Your task to perform on an android device: Add corsair k70 to the cart on bestbuy.com, then select checkout. Image 0: 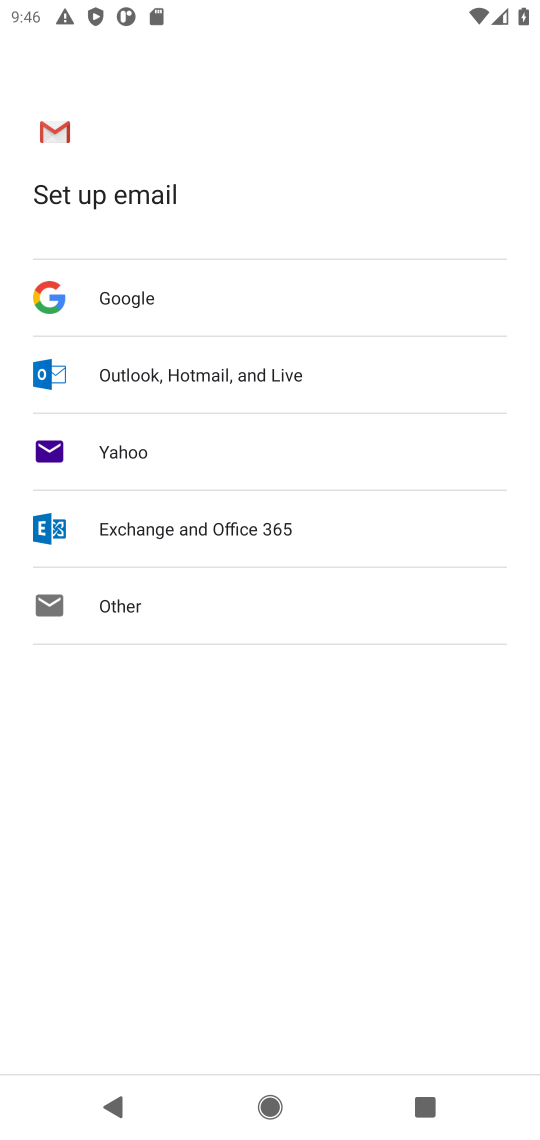
Step 0: press home button
Your task to perform on an android device: Add corsair k70 to the cart on bestbuy.com, then select checkout. Image 1: 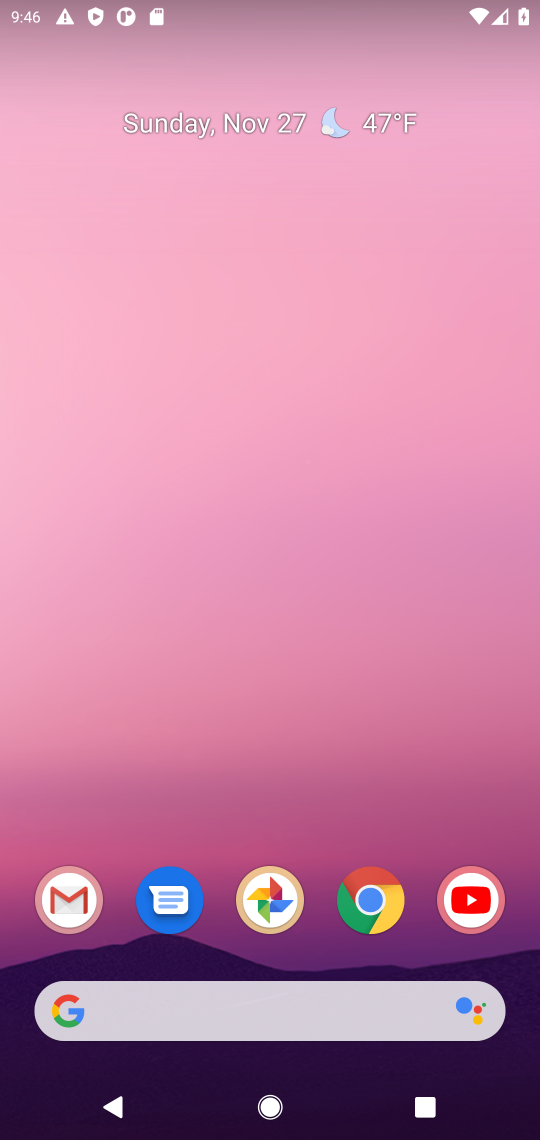
Step 1: click (388, 905)
Your task to perform on an android device: Add corsair k70 to the cart on bestbuy.com, then select checkout. Image 2: 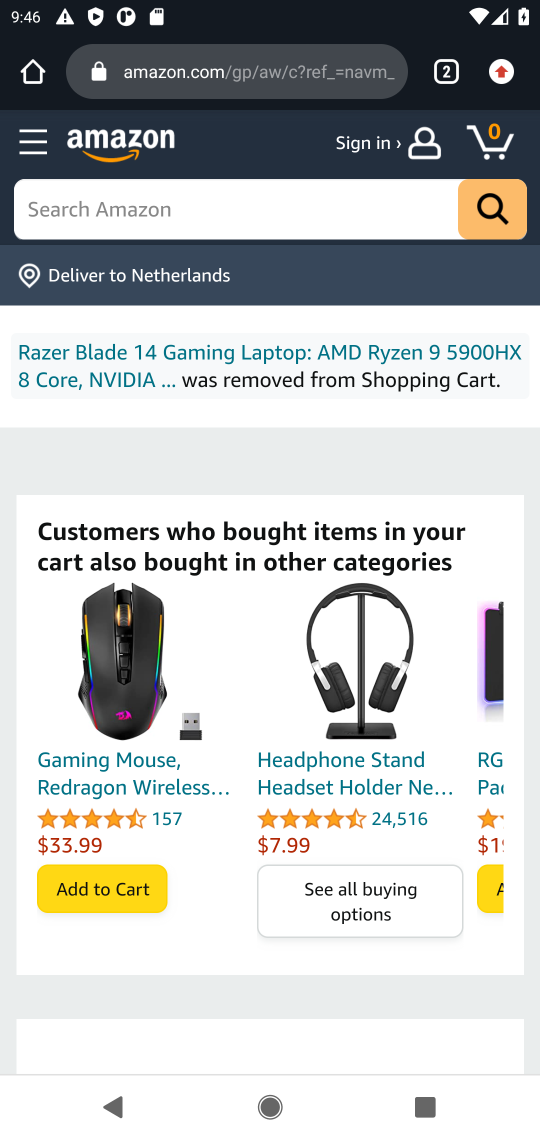
Step 2: click (258, 71)
Your task to perform on an android device: Add corsair k70 to the cart on bestbuy.com, then select checkout. Image 3: 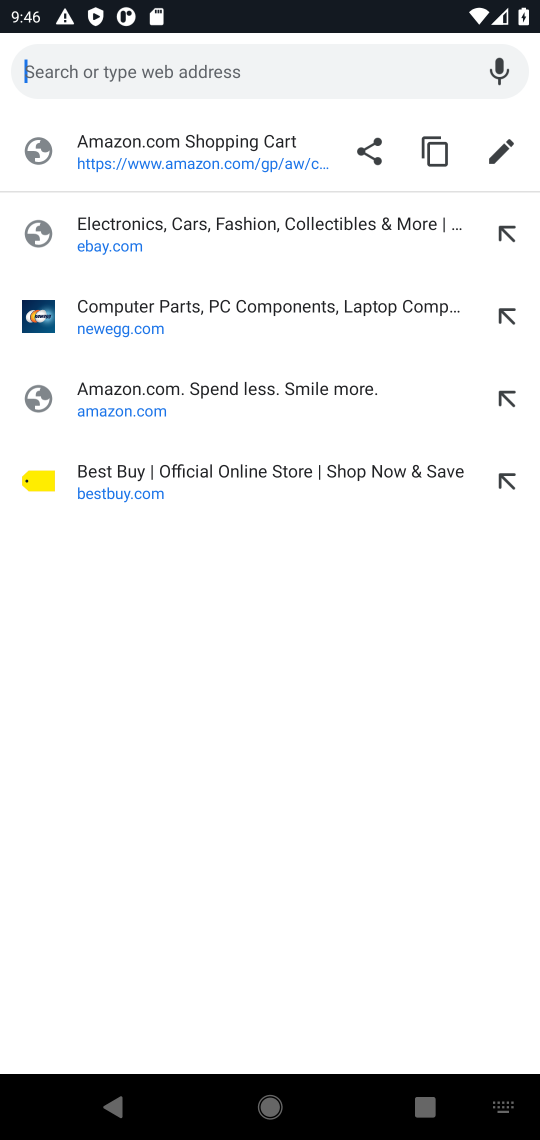
Step 3: click (108, 481)
Your task to perform on an android device: Add corsair k70 to the cart on bestbuy.com, then select checkout. Image 4: 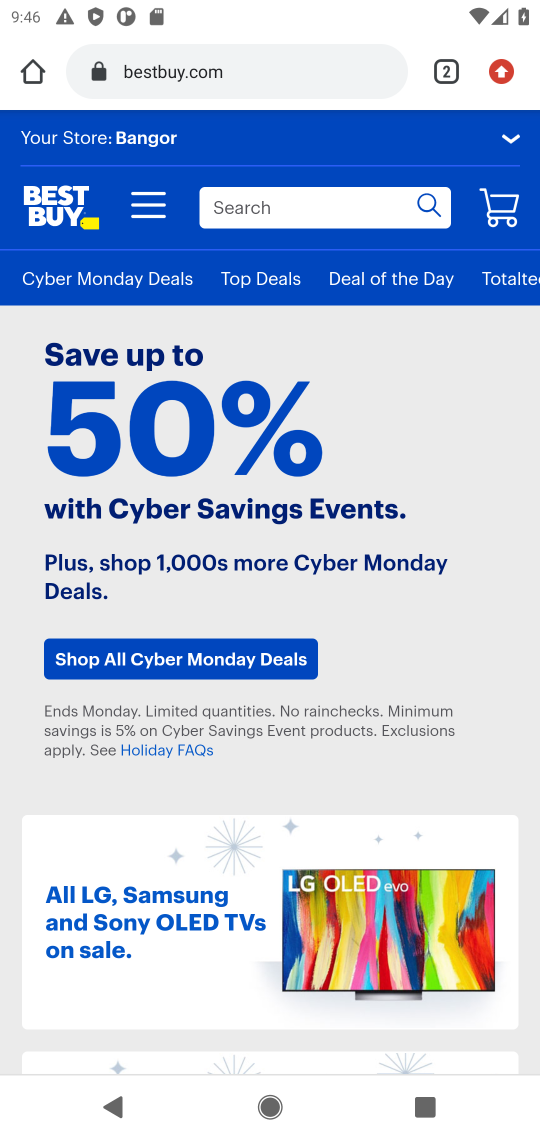
Step 4: click (290, 208)
Your task to perform on an android device: Add corsair k70 to the cart on bestbuy.com, then select checkout. Image 5: 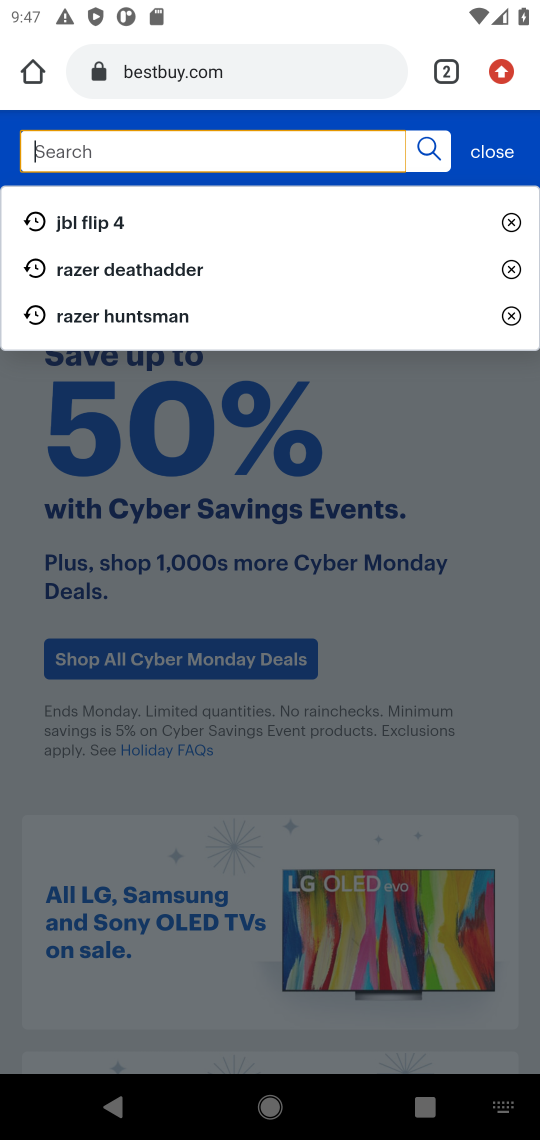
Step 5: type "corsair k70"
Your task to perform on an android device: Add corsair k70 to the cart on bestbuy.com, then select checkout. Image 6: 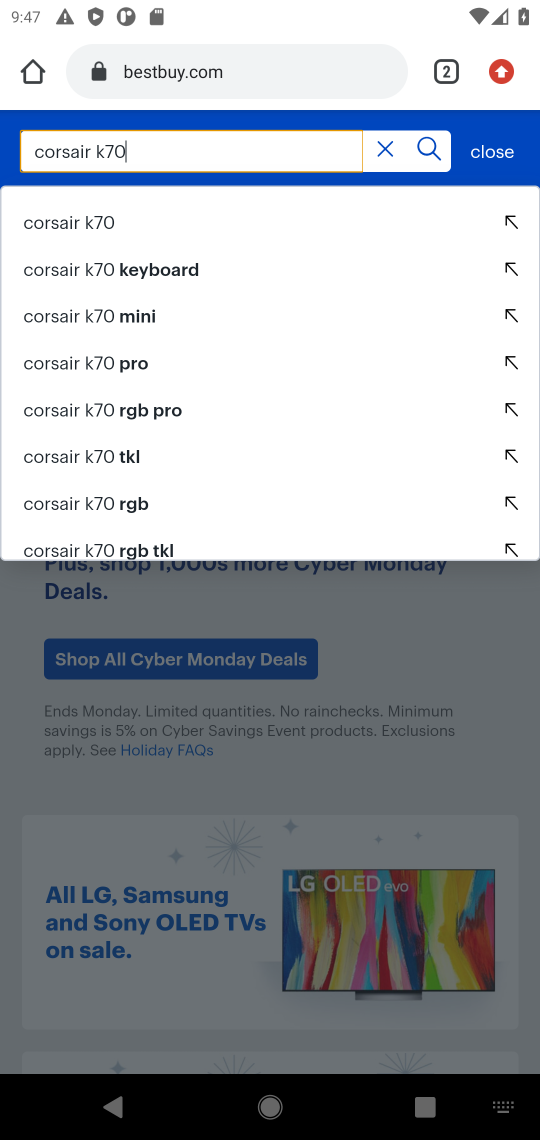
Step 6: click (60, 228)
Your task to perform on an android device: Add corsair k70 to the cart on bestbuy.com, then select checkout. Image 7: 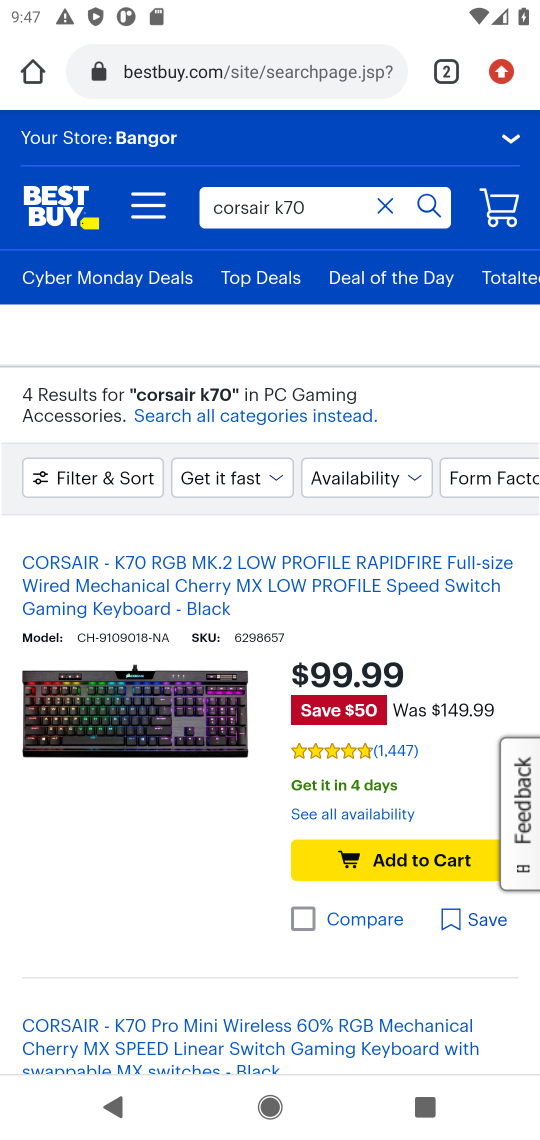
Step 7: click (373, 852)
Your task to perform on an android device: Add corsair k70 to the cart on bestbuy.com, then select checkout. Image 8: 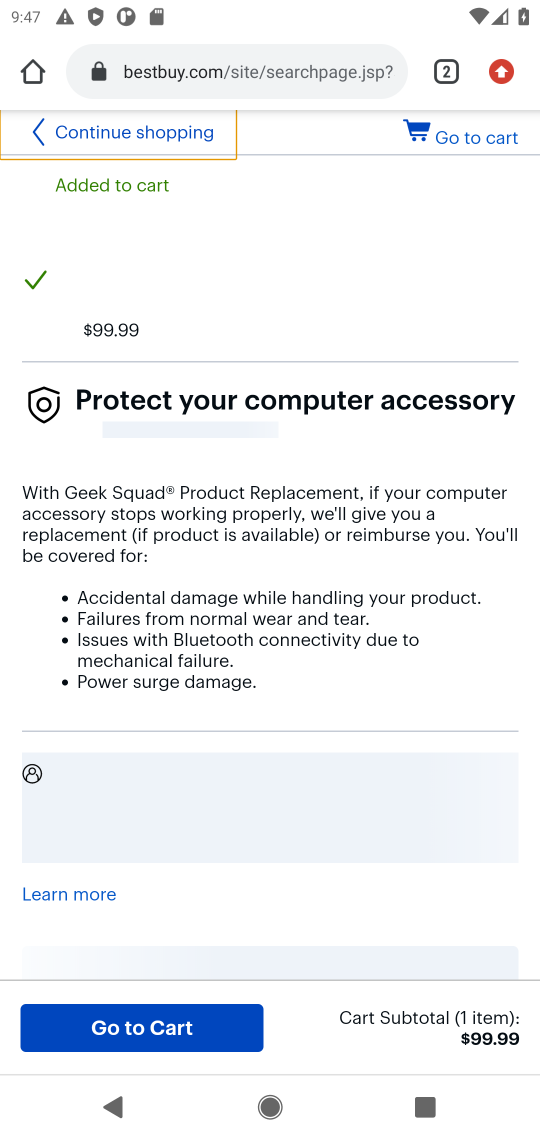
Step 8: click (465, 138)
Your task to perform on an android device: Add corsair k70 to the cart on bestbuy.com, then select checkout. Image 9: 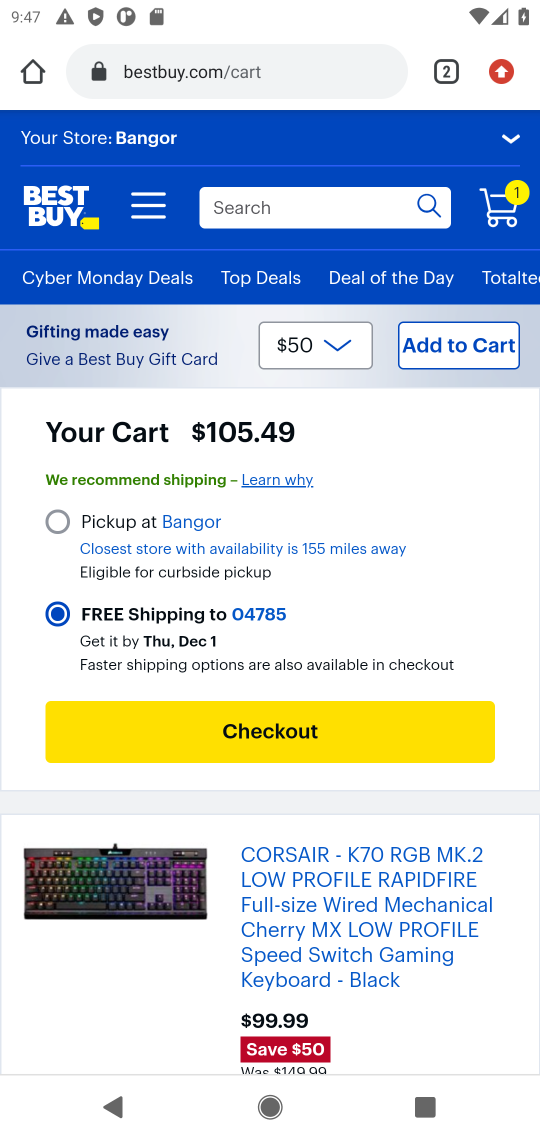
Step 9: click (248, 727)
Your task to perform on an android device: Add corsair k70 to the cart on bestbuy.com, then select checkout. Image 10: 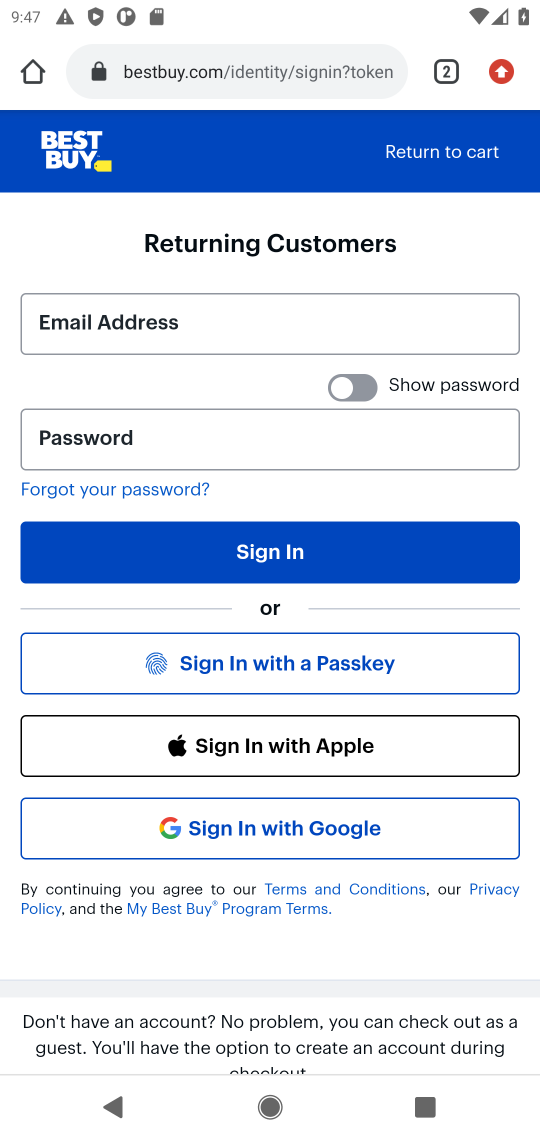
Step 10: task complete